Your task to perform on an android device: turn off notifications settings in the gmail app Image 0: 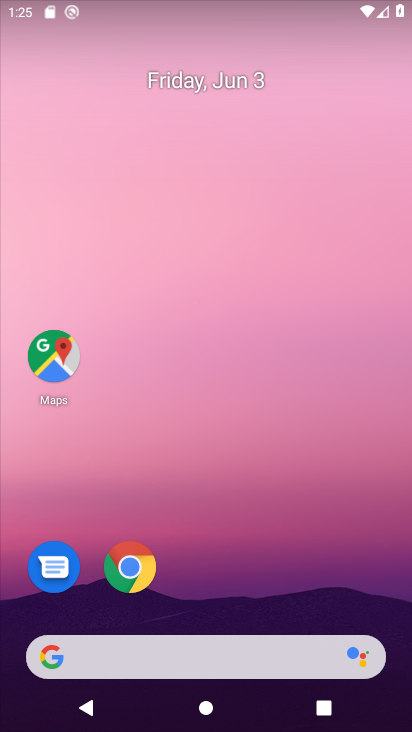
Step 0: drag from (229, 509) to (204, 165)
Your task to perform on an android device: turn off notifications settings in the gmail app Image 1: 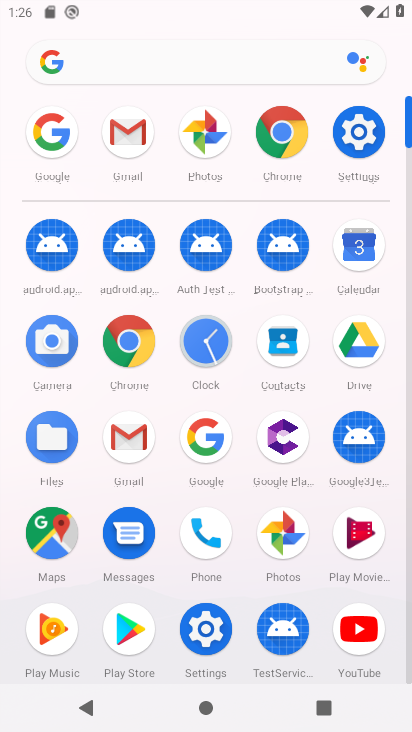
Step 1: click (126, 432)
Your task to perform on an android device: turn off notifications settings in the gmail app Image 2: 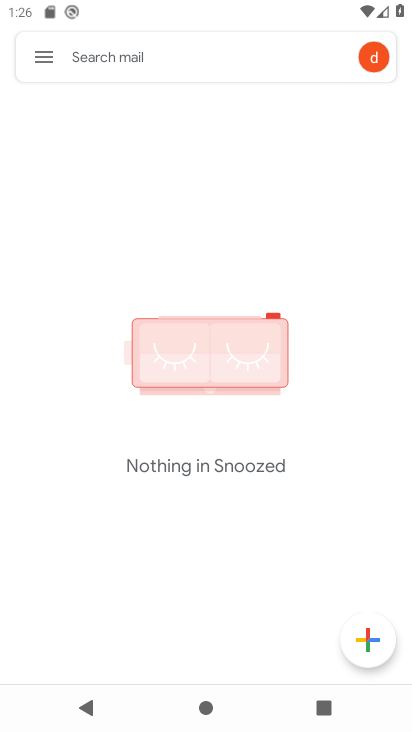
Step 2: click (41, 53)
Your task to perform on an android device: turn off notifications settings in the gmail app Image 3: 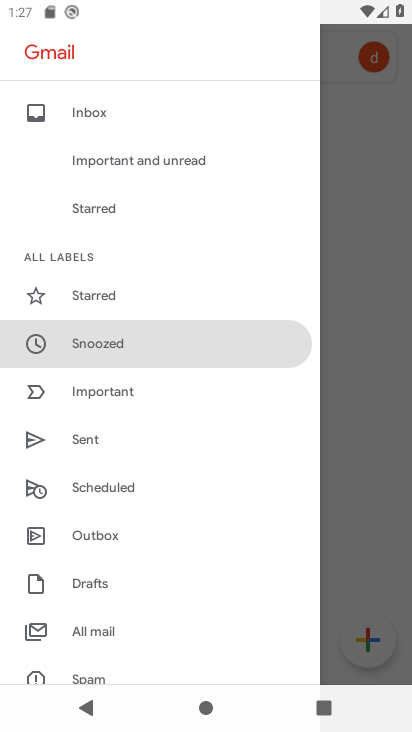
Step 3: drag from (200, 579) to (183, 155)
Your task to perform on an android device: turn off notifications settings in the gmail app Image 4: 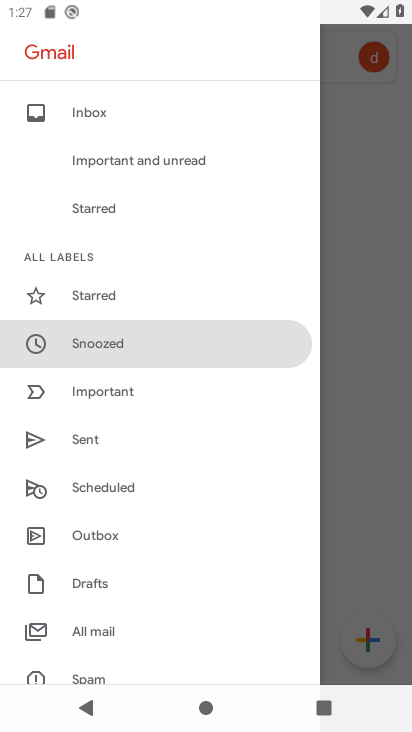
Step 4: drag from (209, 614) to (163, 135)
Your task to perform on an android device: turn off notifications settings in the gmail app Image 5: 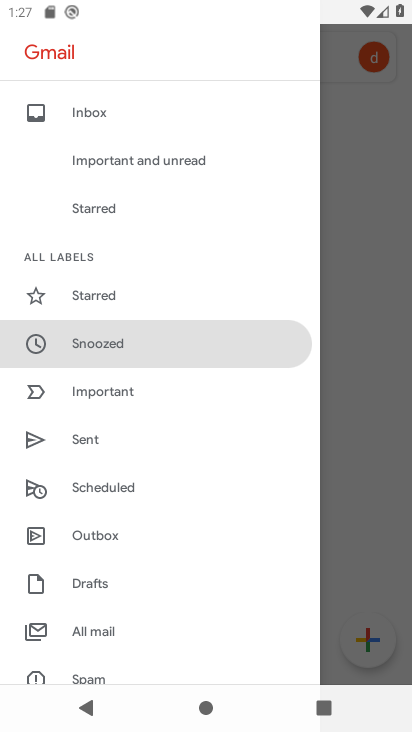
Step 5: drag from (158, 622) to (170, 148)
Your task to perform on an android device: turn off notifications settings in the gmail app Image 6: 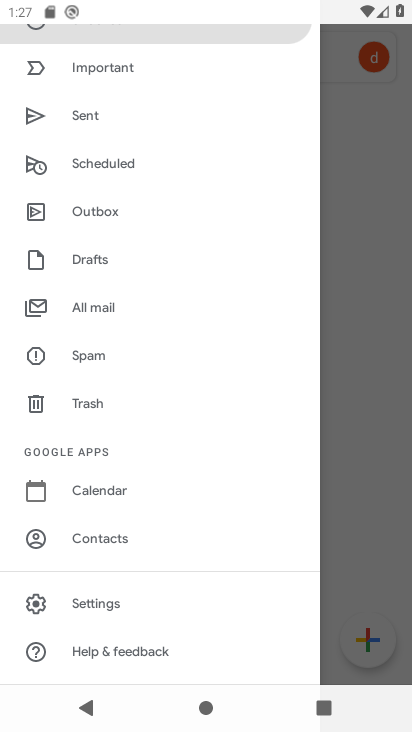
Step 6: click (124, 595)
Your task to perform on an android device: turn off notifications settings in the gmail app Image 7: 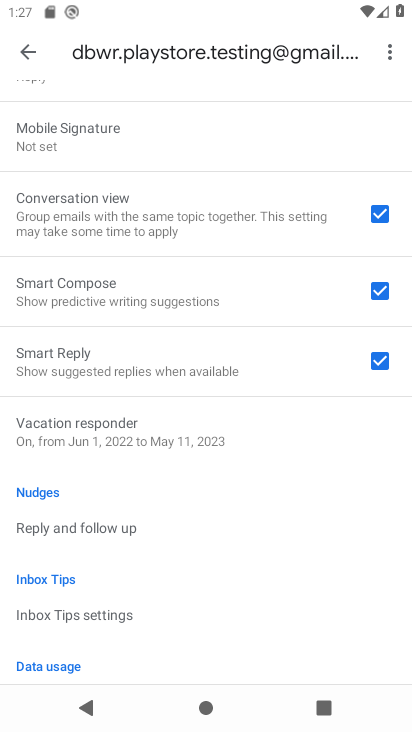
Step 7: drag from (111, 542) to (177, 222)
Your task to perform on an android device: turn off notifications settings in the gmail app Image 8: 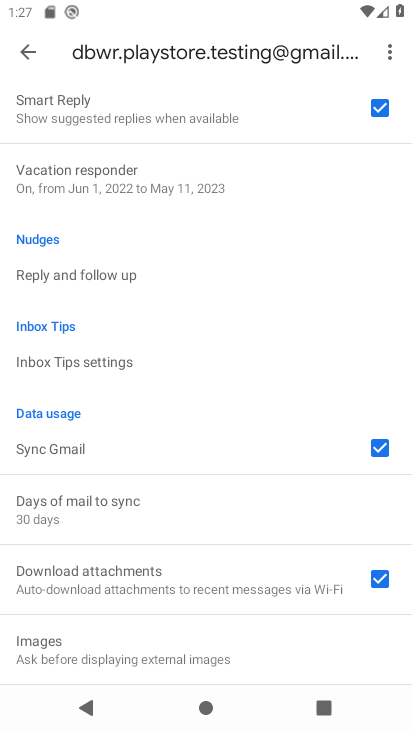
Step 8: drag from (163, 175) to (169, 631)
Your task to perform on an android device: turn off notifications settings in the gmail app Image 9: 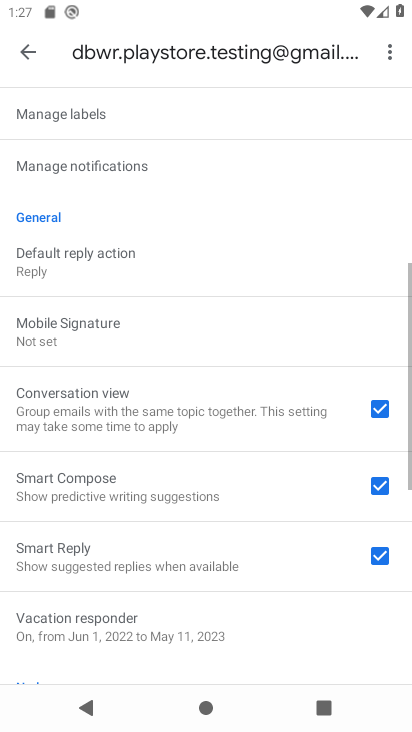
Step 9: drag from (99, 178) to (145, 511)
Your task to perform on an android device: turn off notifications settings in the gmail app Image 10: 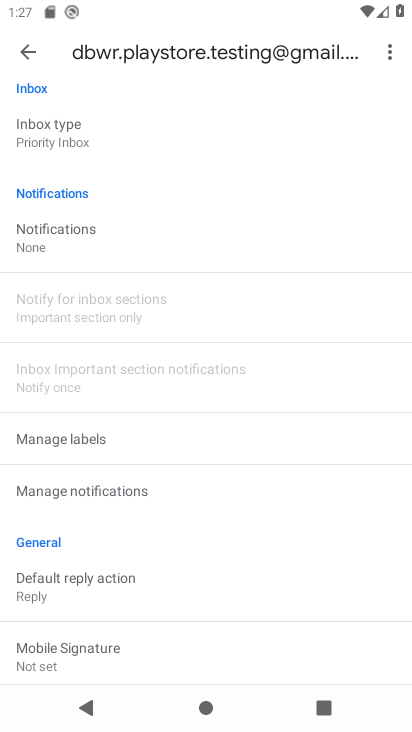
Step 10: click (113, 229)
Your task to perform on an android device: turn off notifications settings in the gmail app Image 11: 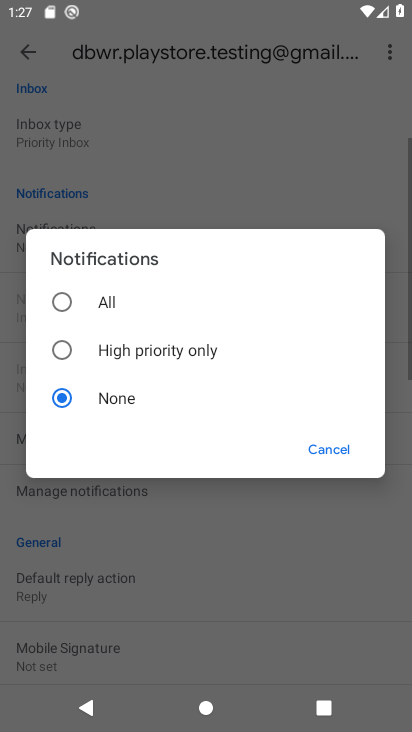
Step 11: click (94, 302)
Your task to perform on an android device: turn off notifications settings in the gmail app Image 12: 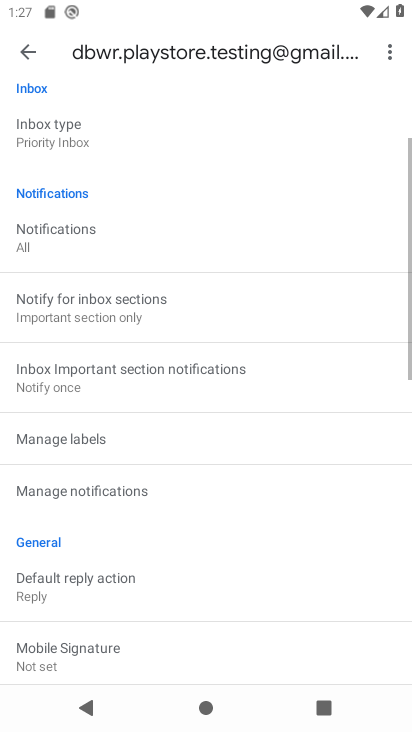
Step 12: click (83, 267)
Your task to perform on an android device: turn off notifications settings in the gmail app Image 13: 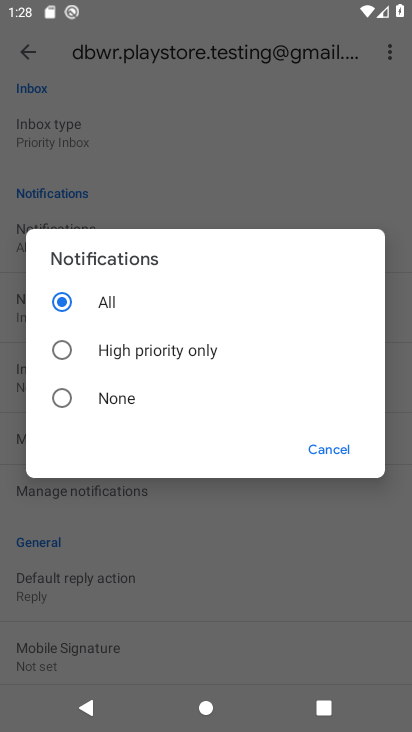
Step 13: click (99, 394)
Your task to perform on an android device: turn off notifications settings in the gmail app Image 14: 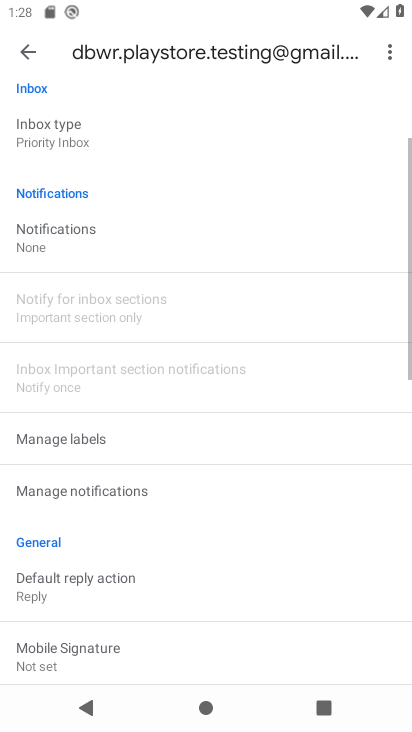
Step 14: task complete